Your task to perform on an android device: toggle sleep mode Image 0: 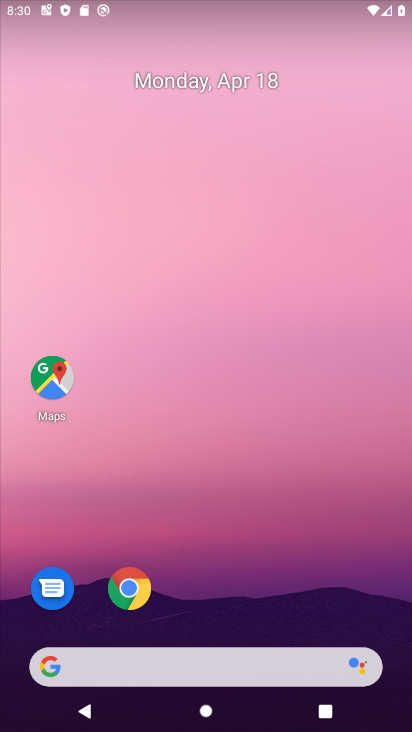
Step 0: drag from (10, 519) to (276, 16)
Your task to perform on an android device: toggle sleep mode Image 1: 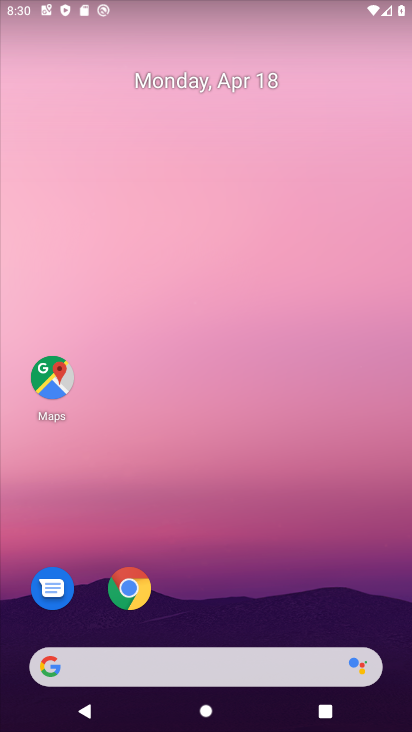
Step 1: drag from (306, 567) to (284, 45)
Your task to perform on an android device: toggle sleep mode Image 2: 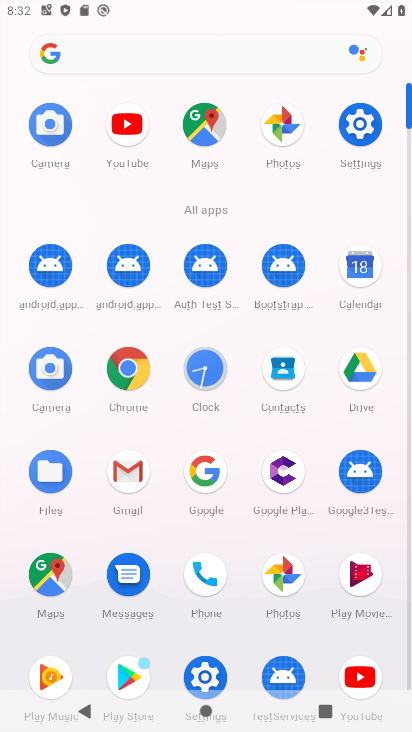
Step 2: click (354, 139)
Your task to perform on an android device: toggle sleep mode Image 3: 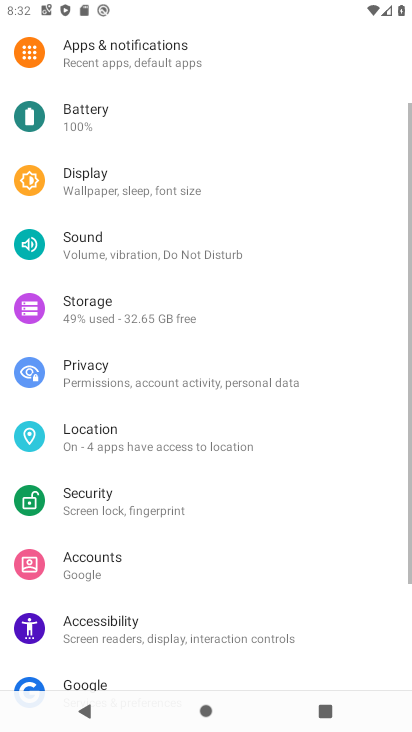
Step 3: task complete